Your task to perform on an android device: Open Wikipedia Image 0: 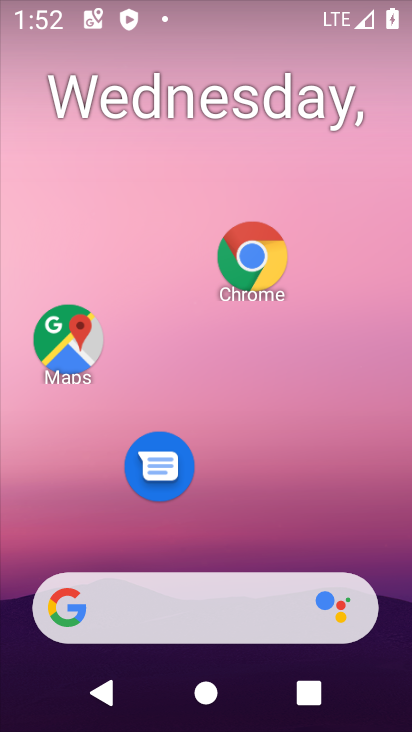
Step 0: drag from (215, 538) to (258, 4)
Your task to perform on an android device: Open Wikipedia Image 1: 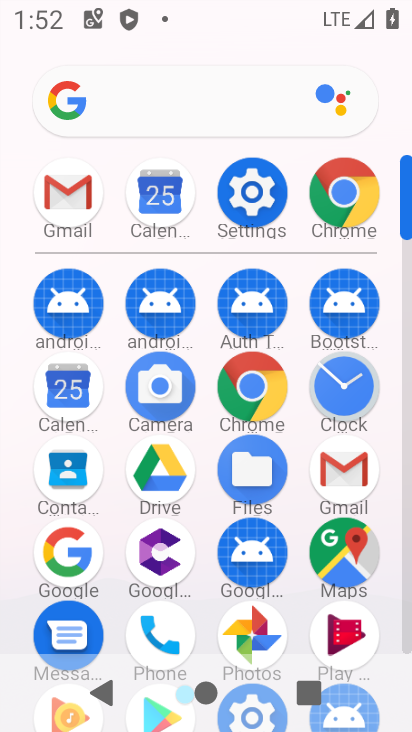
Step 1: click (270, 369)
Your task to perform on an android device: Open Wikipedia Image 2: 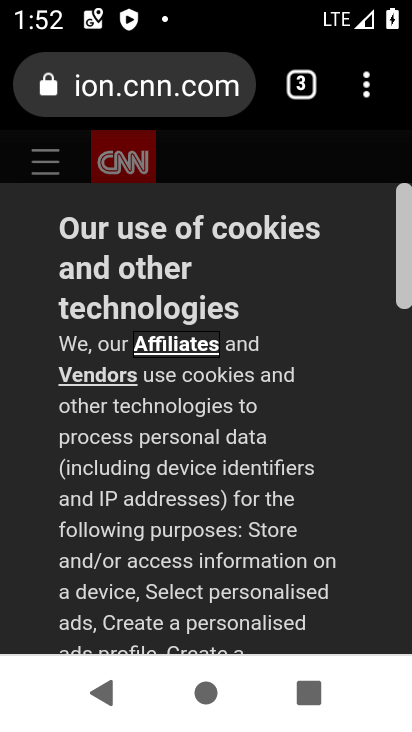
Step 2: drag from (362, 90) to (134, 199)
Your task to perform on an android device: Open Wikipedia Image 3: 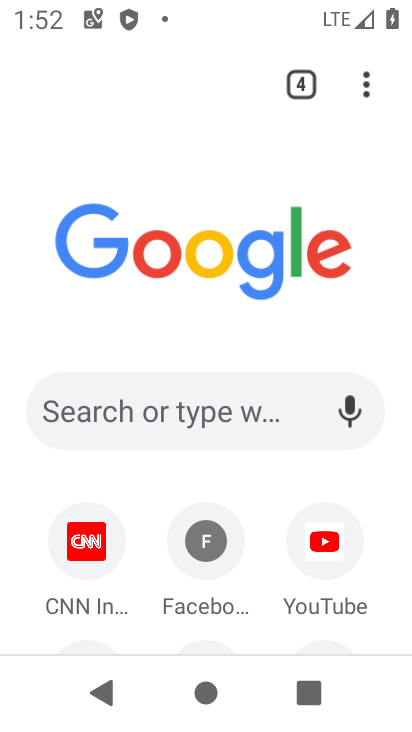
Step 3: drag from (126, 468) to (121, 145)
Your task to perform on an android device: Open Wikipedia Image 4: 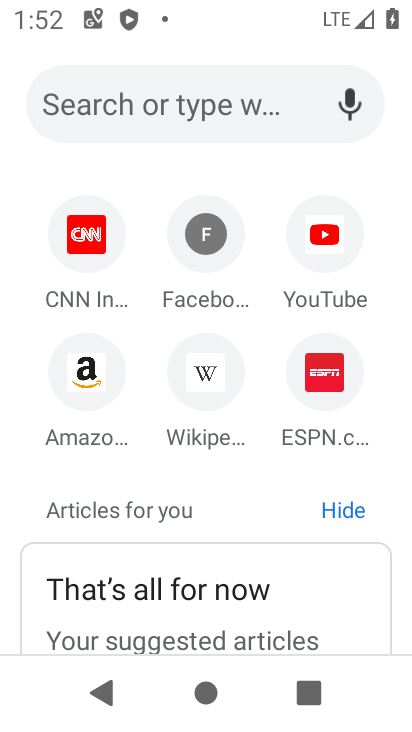
Step 4: click (209, 370)
Your task to perform on an android device: Open Wikipedia Image 5: 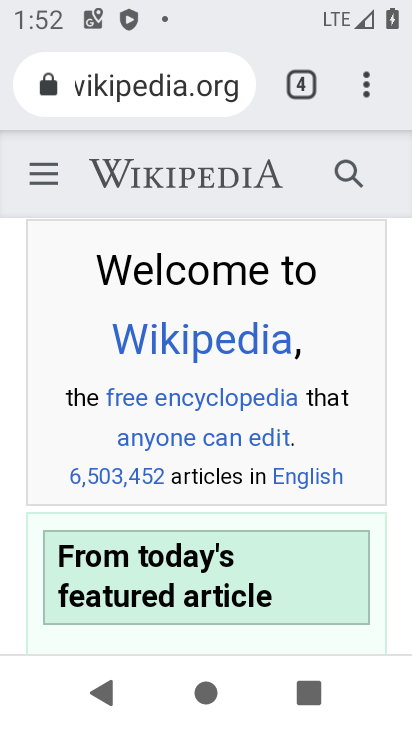
Step 5: task complete